Your task to perform on an android device: open a bookmark in the chrome app Image 0: 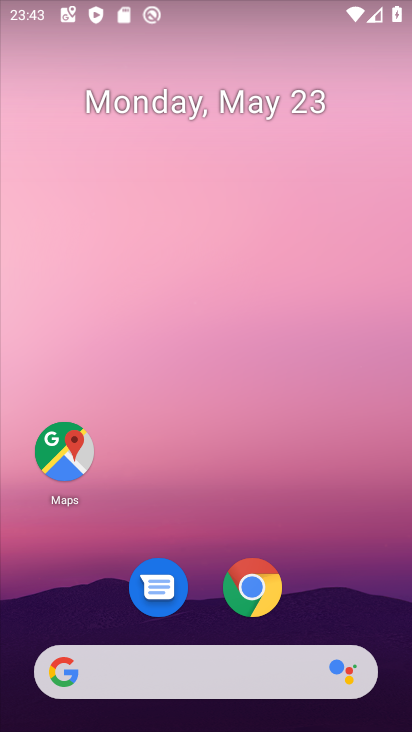
Step 0: click (262, 595)
Your task to perform on an android device: open a bookmark in the chrome app Image 1: 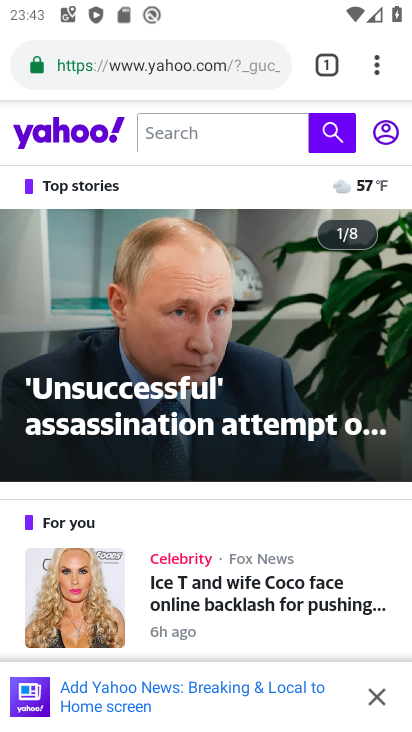
Step 1: click (375, 81)
Your task to perform on an android device: open a bookmark in the chrome app Image 2: 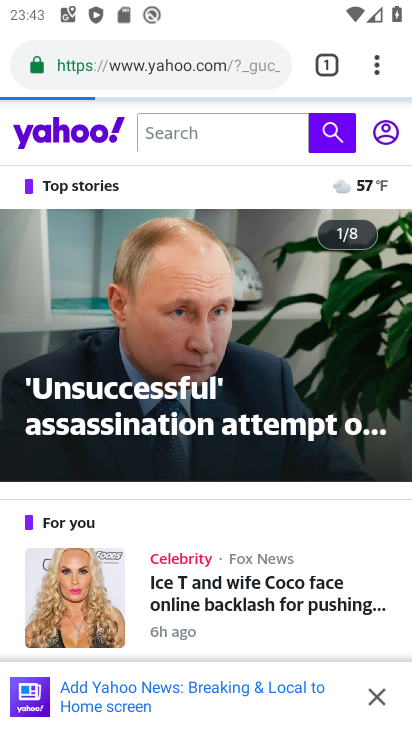
Step 2: task complete